Your task to perform on an android device: turn off improve location accuracy Image 0: 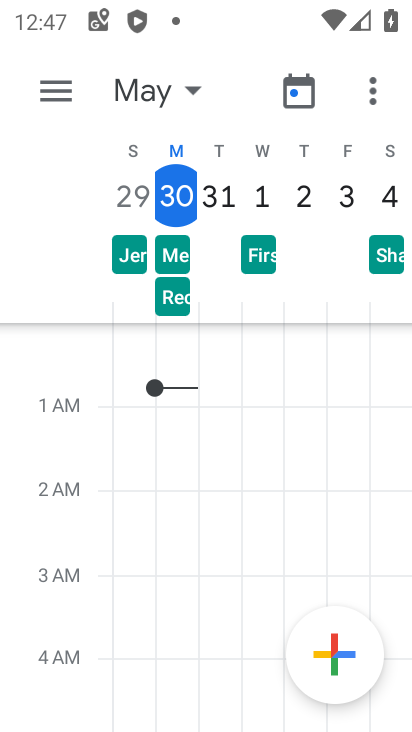
Step 0: press home button
Your task to perform on an android device: turn off improve location accuracy Image 1: 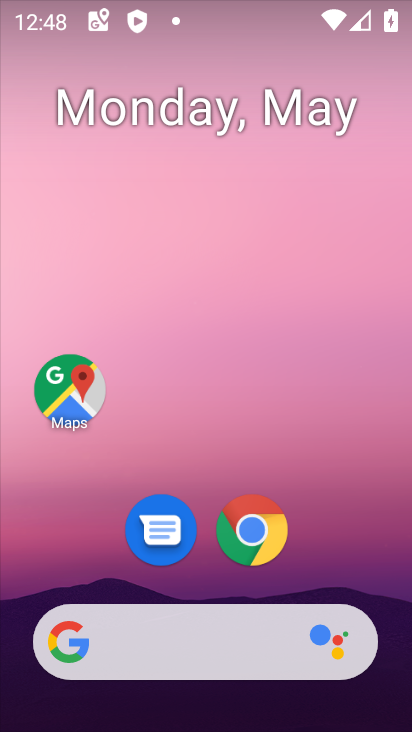
Step 1: drag from (179, 639) to (239, 20)
Your task to perform on an android device: turn off improve location accuracy Image 2: 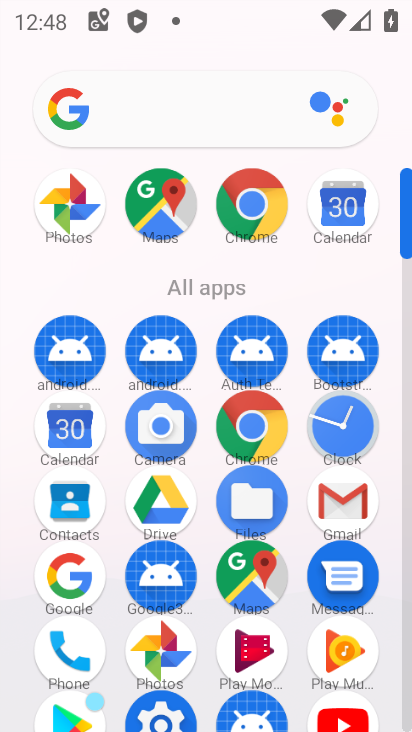
Step 2: drag from (284, 387) to (221, 17)
Your task to perform on an android device: turn off improve location accuracy Image 3: 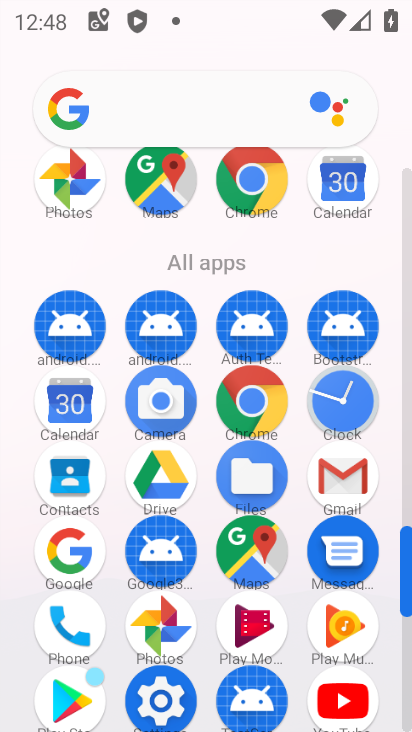
Step 3: click (162, 688)
Your task to perform on an android device: turn off improve location accuracy Image 4: 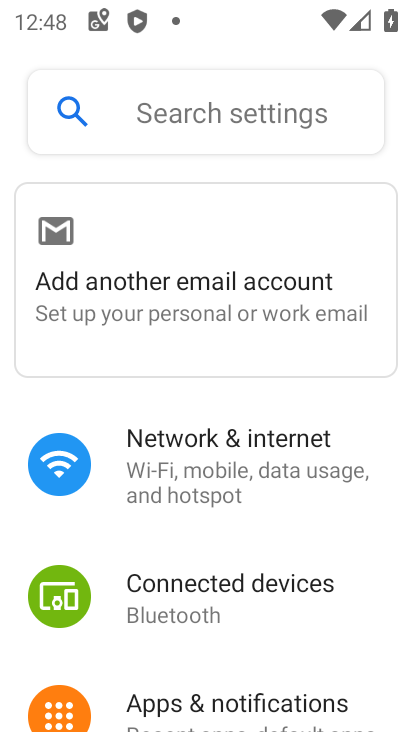
Step 4: drag from (220, 617) to (218, 26)
Your task to perform on an android device: turn off improve location accuracy Image 5: 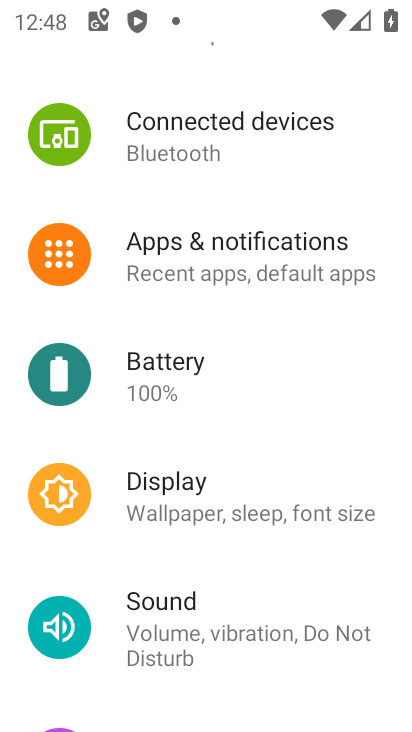
Step 5: drag from (196, 599) to (139, 23)
Your task to perform on an android device: turn off improve location accuracy Image 6: 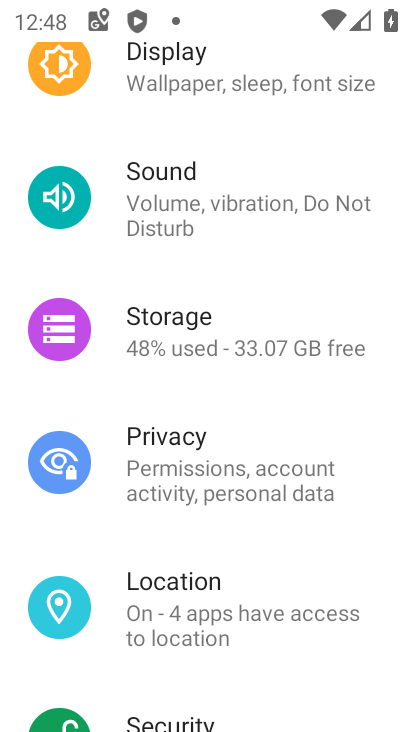
Step 6: click (203, 611)
Your task to perform on an android device: turn off improve location accuracy Image 7: 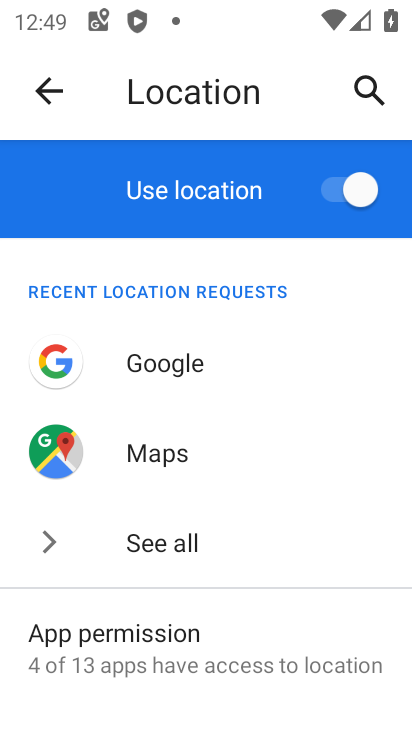
Step 7: drag from (205, 639) to (271, 32)
Your task to perform on an android device: turn off improve location accuracy Image 8: 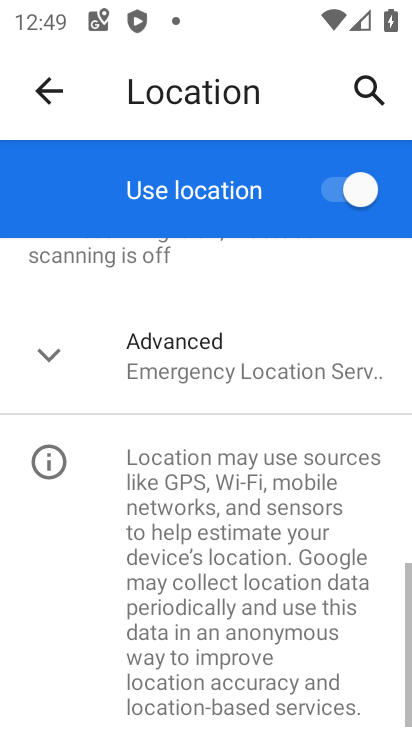
Step 8: click (214, 359)
Your task to perform on an android device: turn off improve location accuracy Image 9: 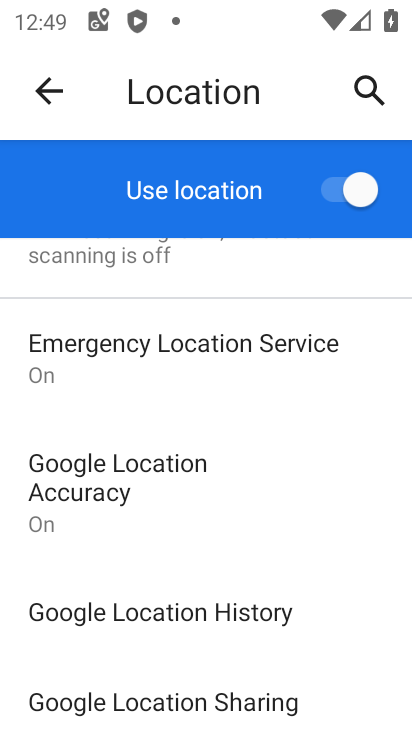
Step 9: click (165, 484)
Your task to perform on an android device: turn off improve location accuracy Image 10: 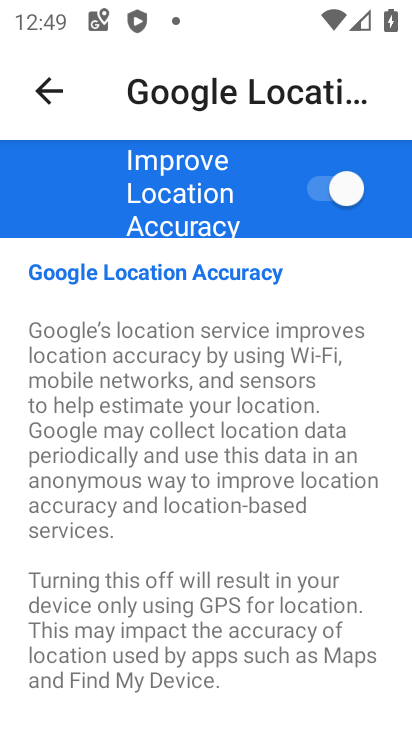
Step 10: click (334, 204)
Your task to perform on an android device: turn off improve location accuracy Image 11: 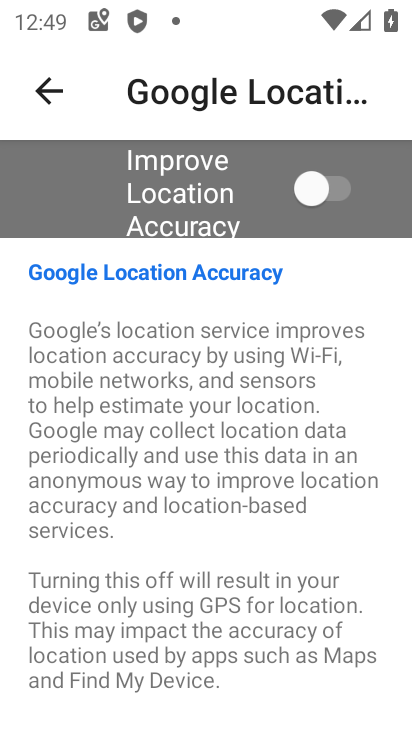
Step 11: task complete